Your task to perform on an android device: change alarm snooze length Image 0: 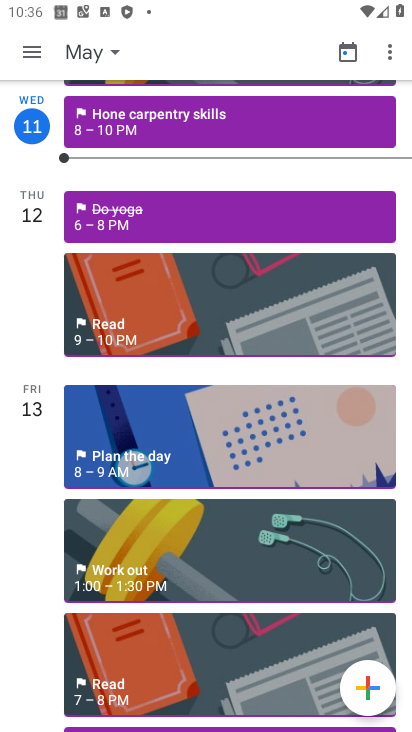
Step 0: press home button
Your task to perform on an android device: change alarm snooze length Image 1: 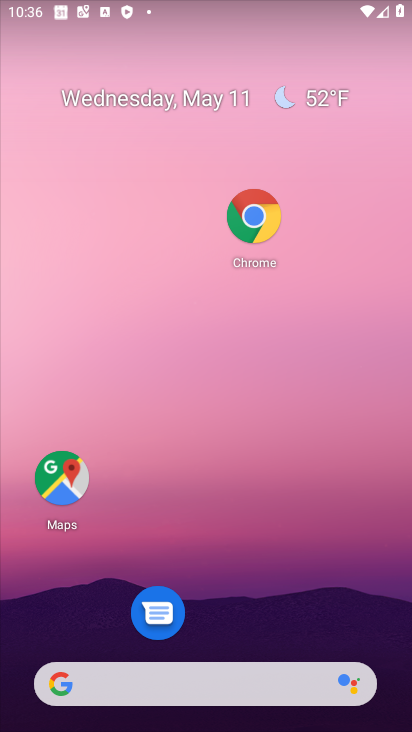
Step 1: drag from (277, 610) to (158, 201)
Your task to perform on an android device: change alarm snooze length Image 2: 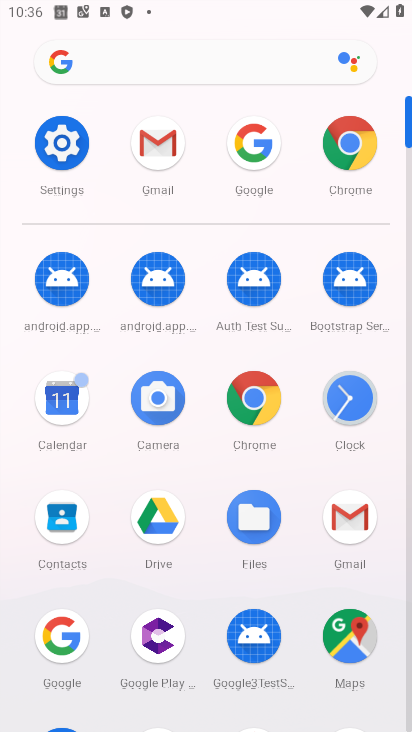
Step 2: click (342, 416)
Your task to perform on an android device: change alarm snooze length Image 3: 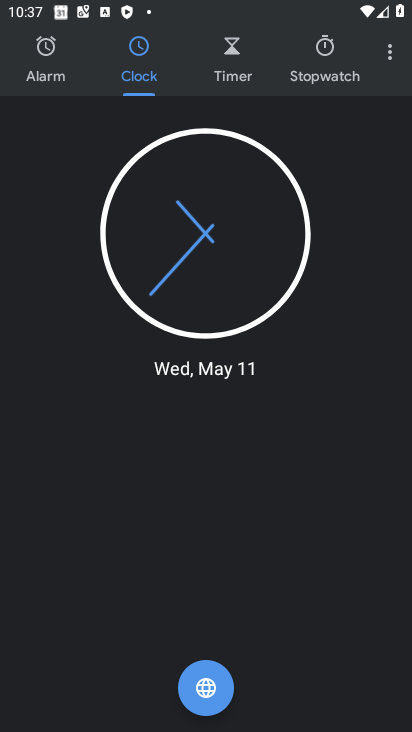
Step 3: click (399, 60)
Your task to perform on an android device: change alarm snooze length Image 4: 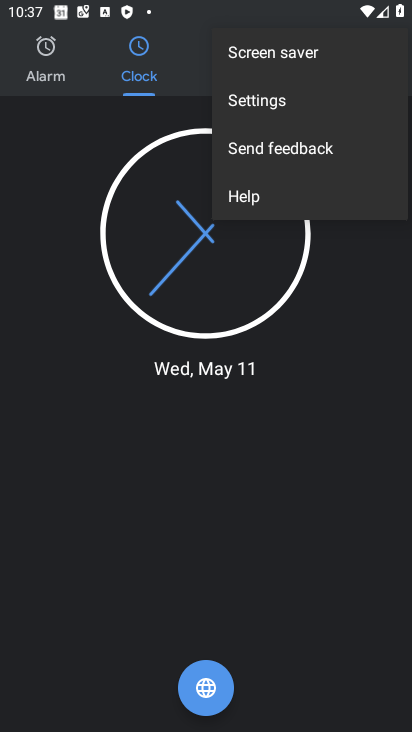
Step 4: click (290, 111)
Your task to perform on an android device: change alarm snooze length Image 5: 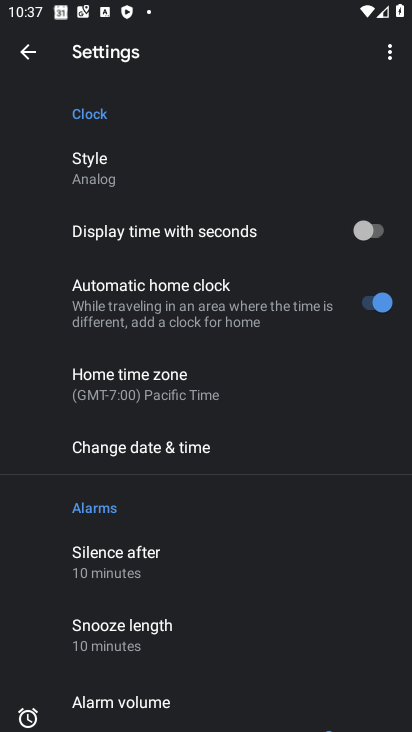
Step 5: drag from (275, 576) to (244, 348)
Your task to perform on an android device: change alarm snooze length Image 6: 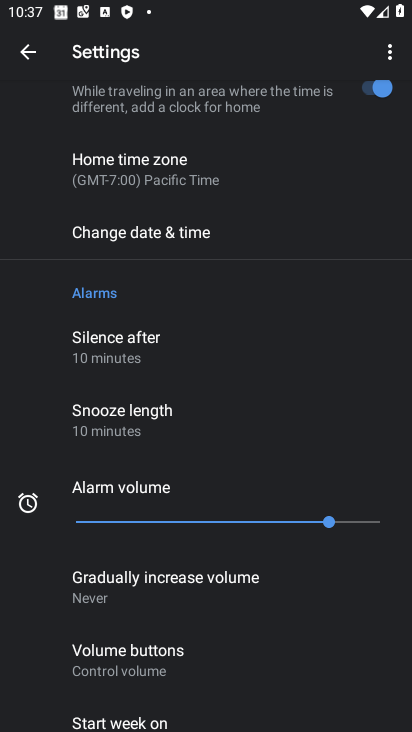
Step 6: click (222, 425)
Your task to perform on an android device: change alarm snooze length Image 7: 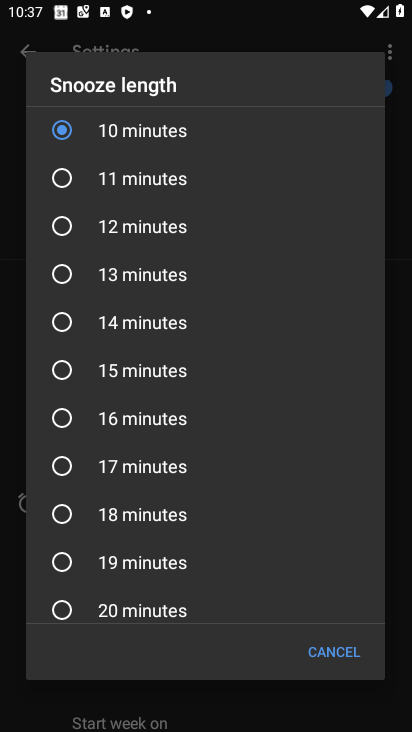
Step 7: click (159, 182)
Your task to perform on an android device: change alarm snooze length Image 8: 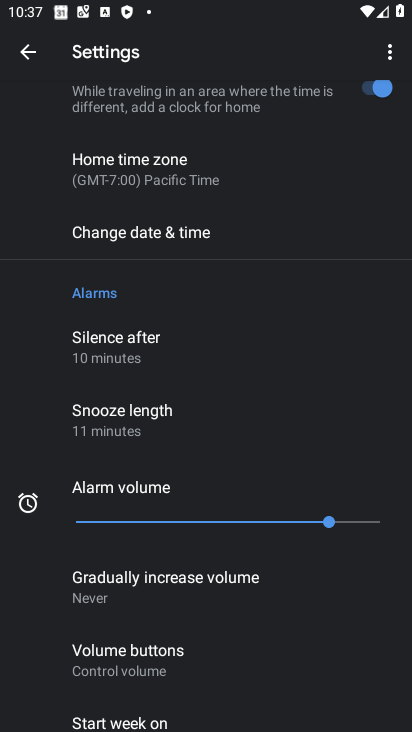
Step 8: task complete